Your task to perform on an android device: toggle wifi Image 0: 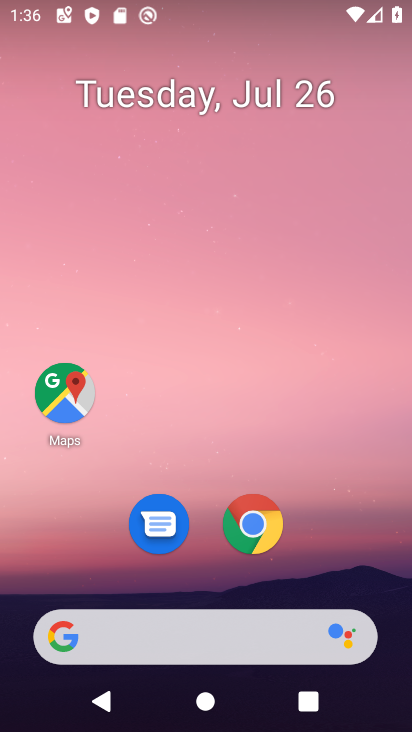
Step 0: drag from (315, 488) to (367, 33)
Your task to perform on an android device: toggle wifi Image 1: 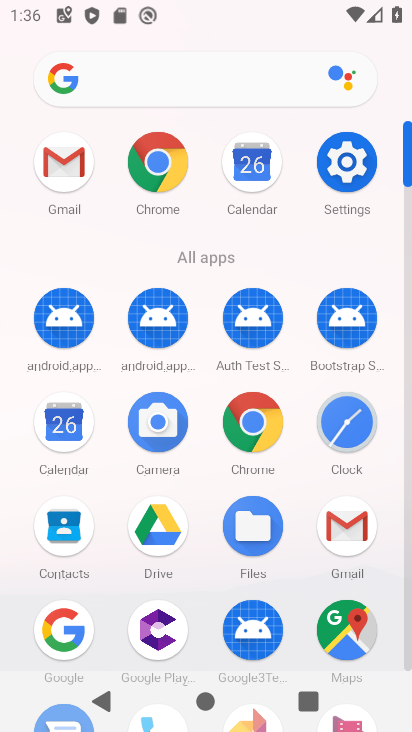
Step 1: click (348, 161)
Your task to perform on an android device: toggle wifi Image 2: 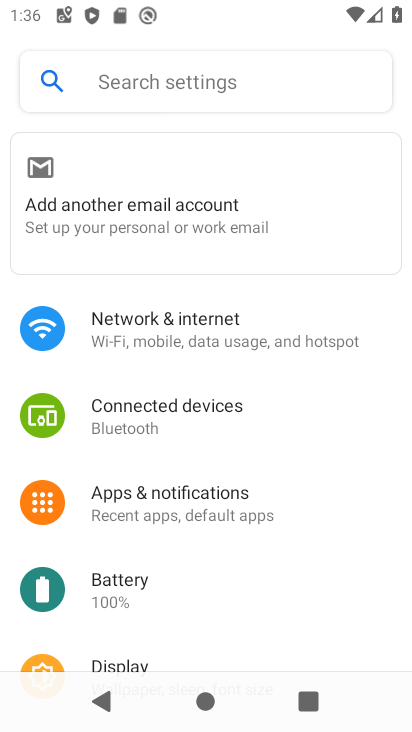
Step 2: click (201, 336)
Your task to perform on an android device: toggle wifi Image 3: 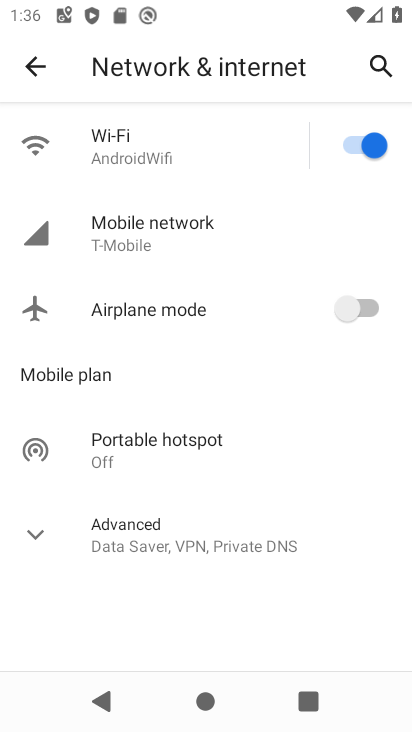
Step 3: click (365, 144)
Your task to perform on an android device: toggle wifi Image 4: 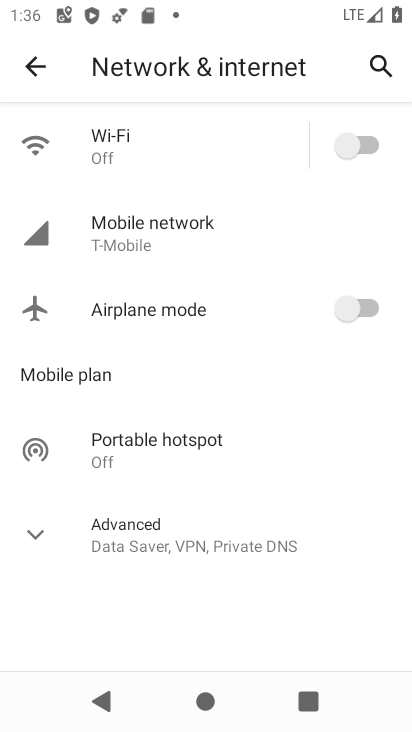
Step 4: task complete